Your task to perform on an android device: Toggle the flashlight Image 0: 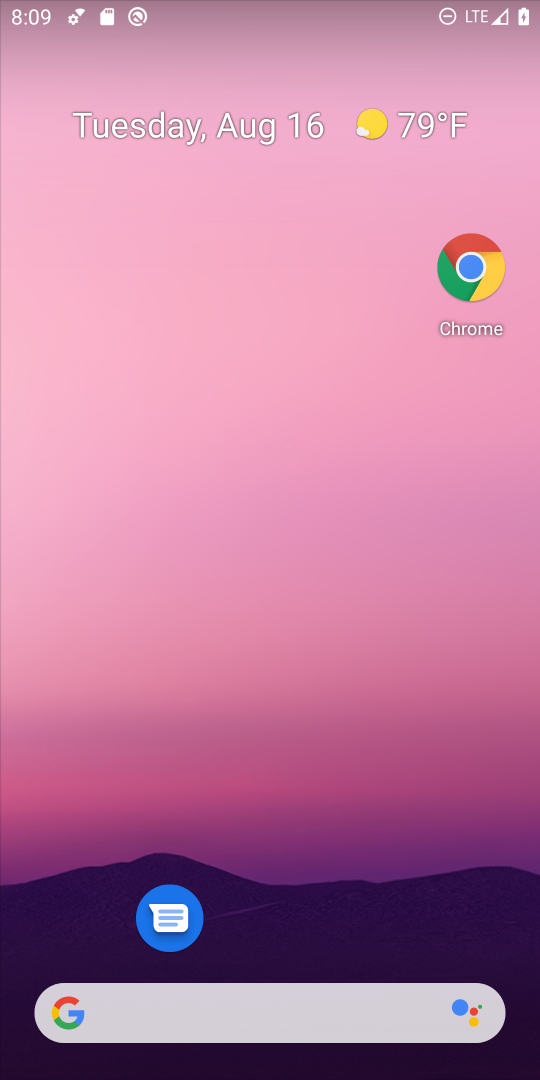
Step 0: drag from (376, 58) to (300, 782)
Your task to perform on an android device: Toggle the flashlight Image 1: 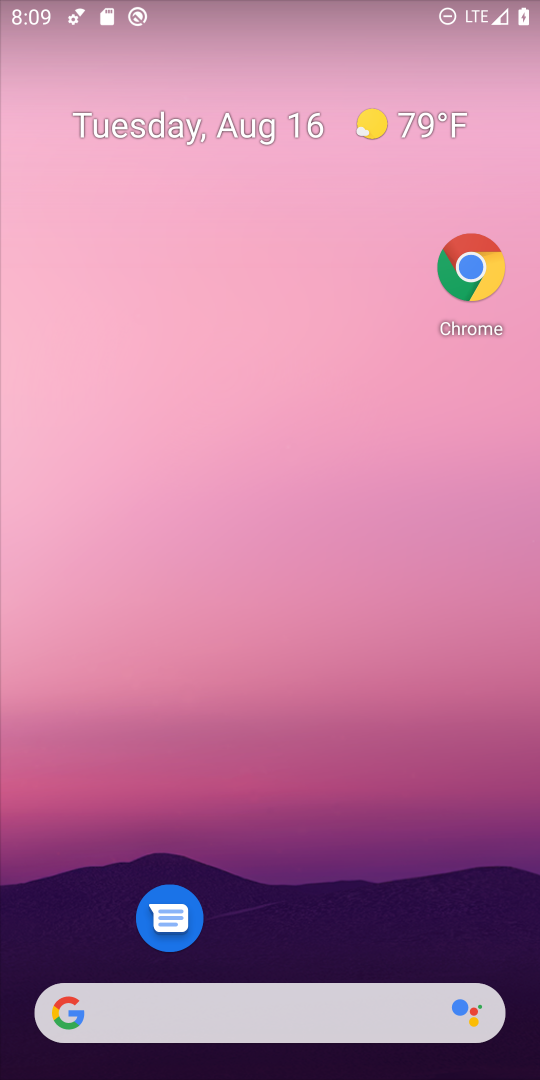
Step 1: task complete